Your task to perform on an android device: Go to accessibility settings Image 0: 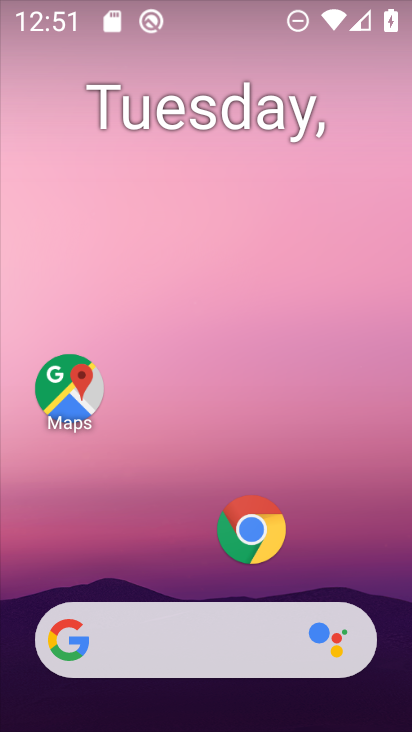
Step 0: drag from (212, 675) to (253, 317)
Your task to perform on an android device: Go to accessibility settings Image 1: 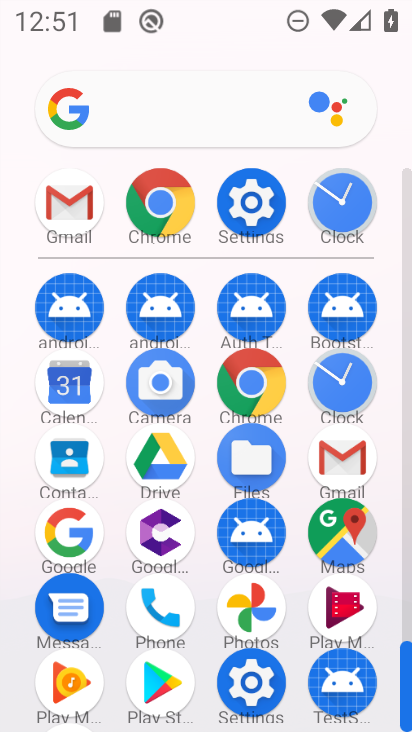
Step 1: click (256, 198)
Your task to perform on an android device: Go to accessibility settings Image 2: 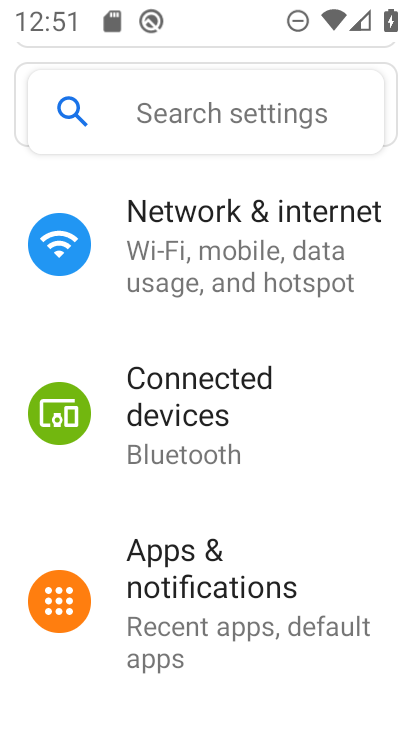
Step 2: click (168, 88)
Your task to perform on an android device: Go to accessibility settings Image 3: 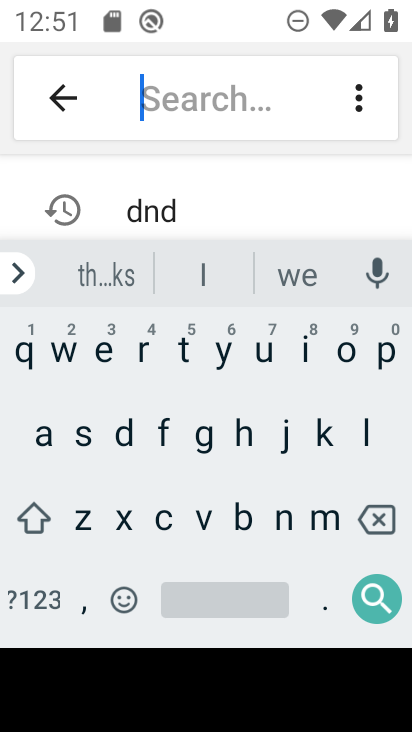
Step 3: click (51, 437)
Your task to perform on an android device: Go to accessibility settings Image 4: 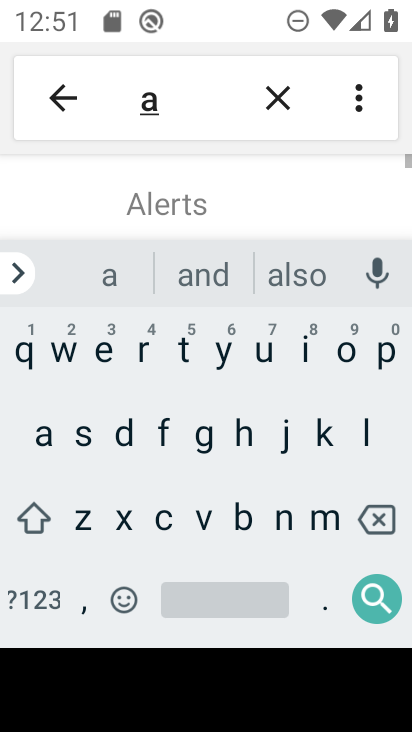
Step 4: click (156, 537)
Your task to perform on an android device: Go to accessibility settings Image 5: 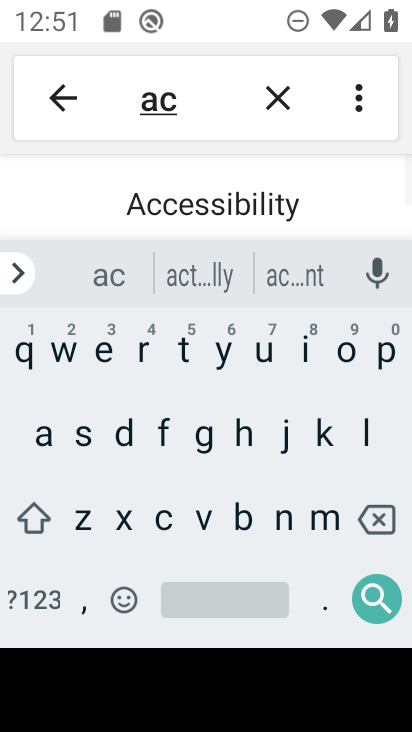
Step 5: click (178, 214)
Your task to perform on an android device: Go to accessibility settings Image 6: 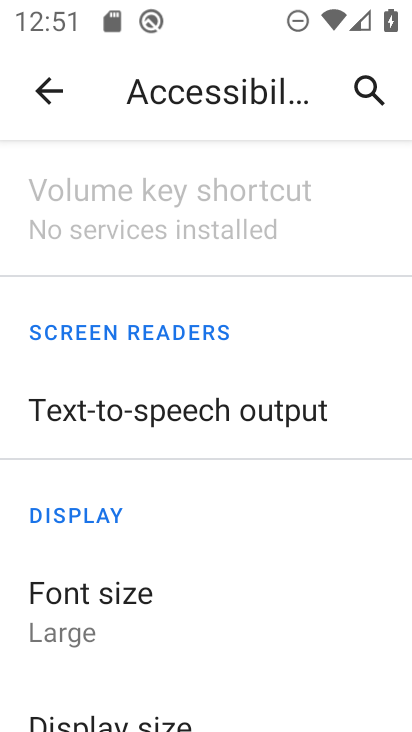
Step 6: task complete